Your task to perform on an android device: toggle notification dots Image 0: 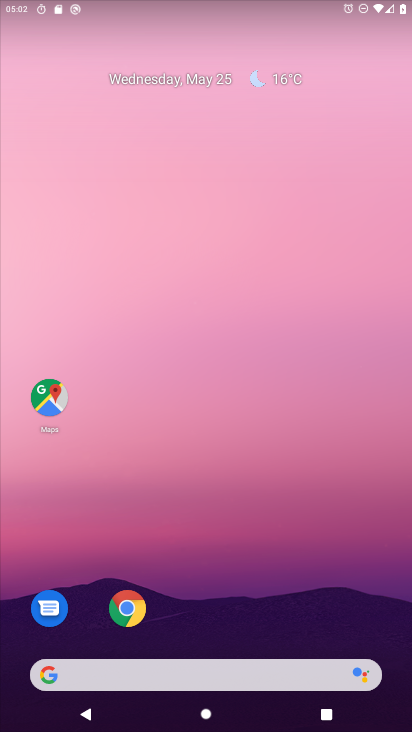
Step 0: drag from (231, 596) to (237, 155)
Your task to perform on an android device: toggle notification dots Image 1: 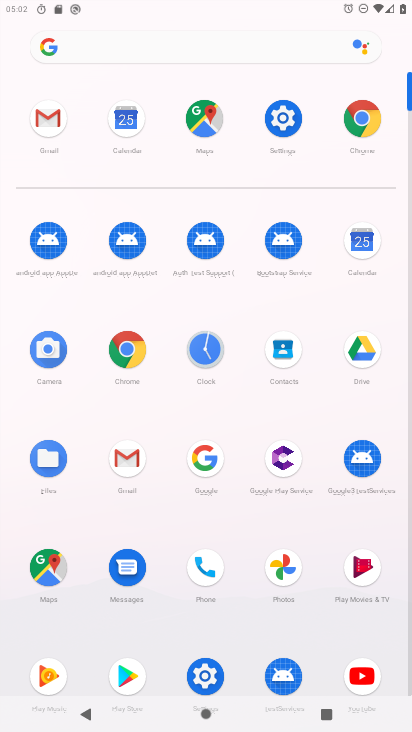
Step 1: click (286, 119)
Your task to perform on an android device: toggle notification dots Image 2: 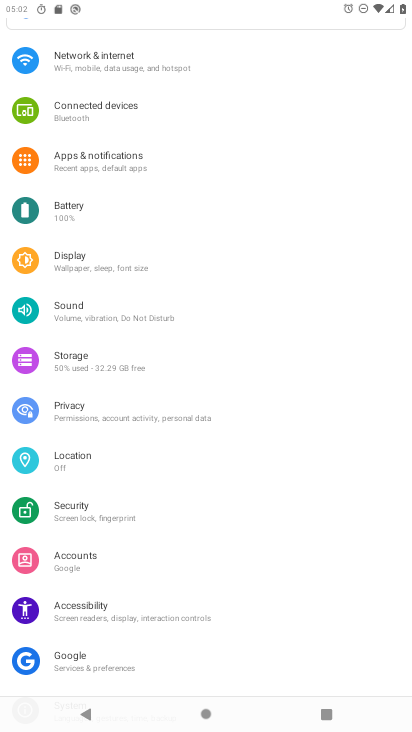
Step 2: drag from (252, 111) to (207, 400)
Your task to perform on an android device: toggle notification dots Image 3: 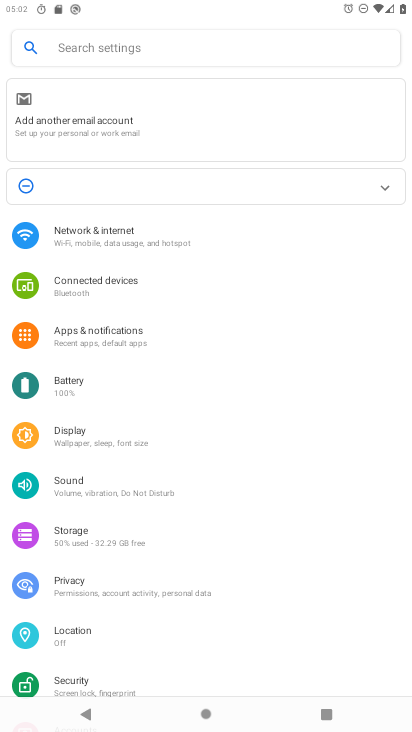
Step 3: click (152, 341)
Your task to perform on an android device: toggle notification dots Image 4: 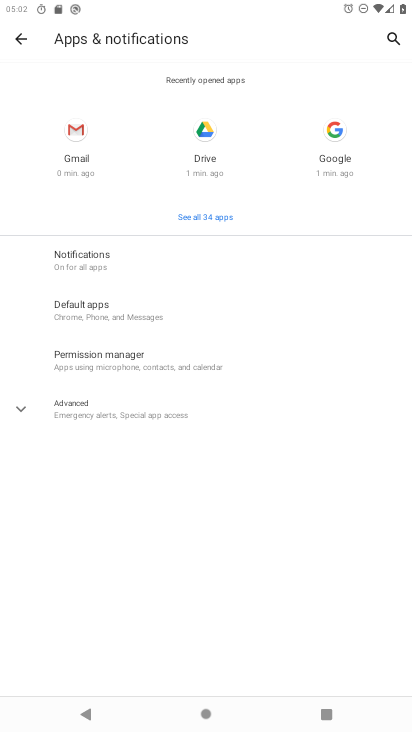
Step 4: click (116, 252)
Your task to perform on an android device: toggle notification dots Image 5: 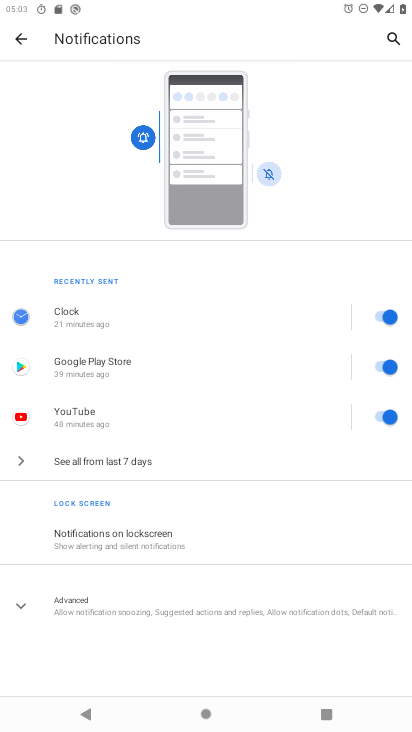
Step 5: click (134, 614)
Your task to perform on an android device: toggle notification dots Image 6: 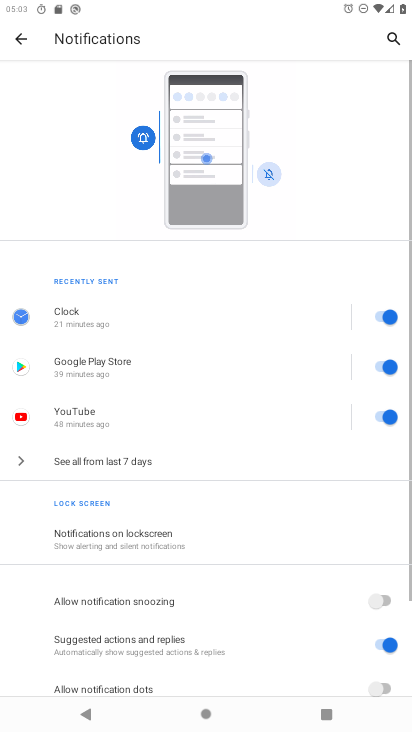
Step 6: drag from (151, 590) to (223, 144)
Your task to perform on an android device: toggle notification dots Image 7: 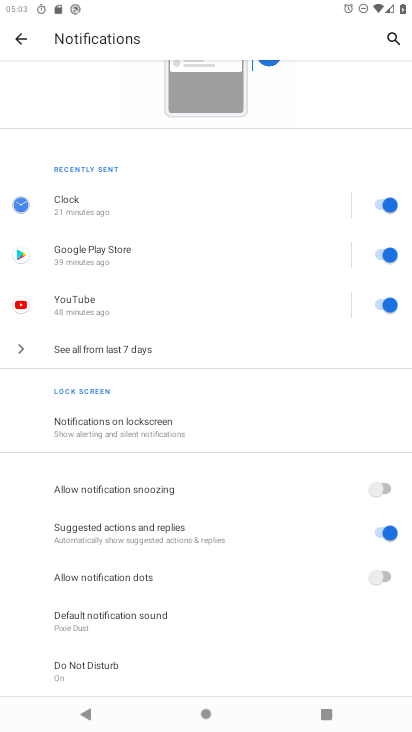
Step 7: click (365, 575)
Your task to perform on an android device: toggle notification dots Image 8: 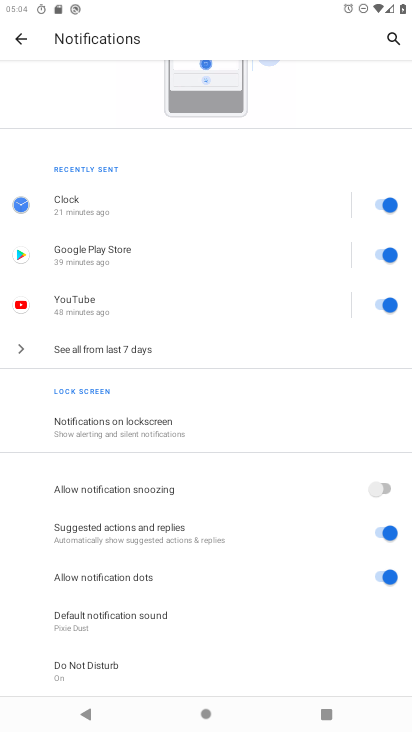
Step 8: task complete